Your task to perform on an android device: open app "PUBG MOBILE" (install if not already installed), go to login, and select forgot password Image 0: 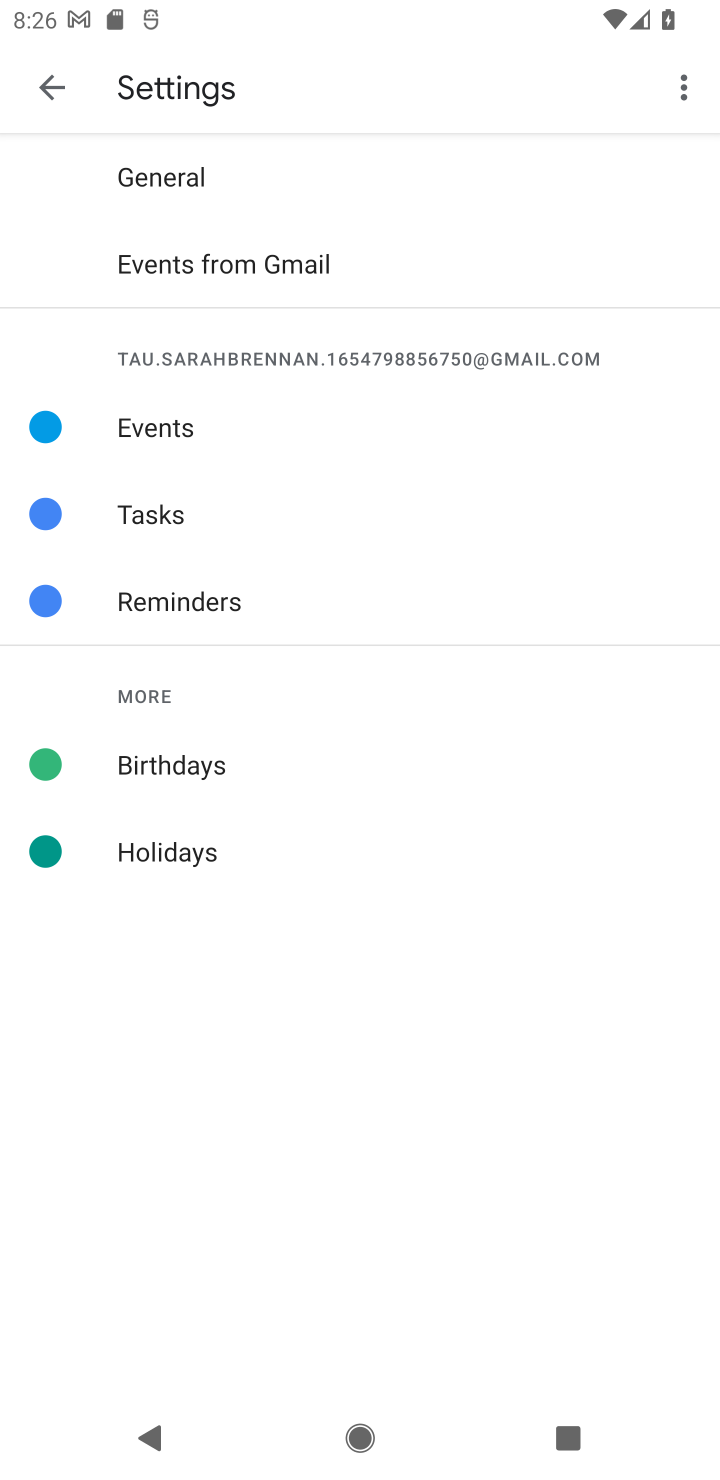
Step 0: press home button
Your task to perform on an android device: open app "PUBG MOBILE" (install if not already installed), go to login, and select forgot password Image 1: 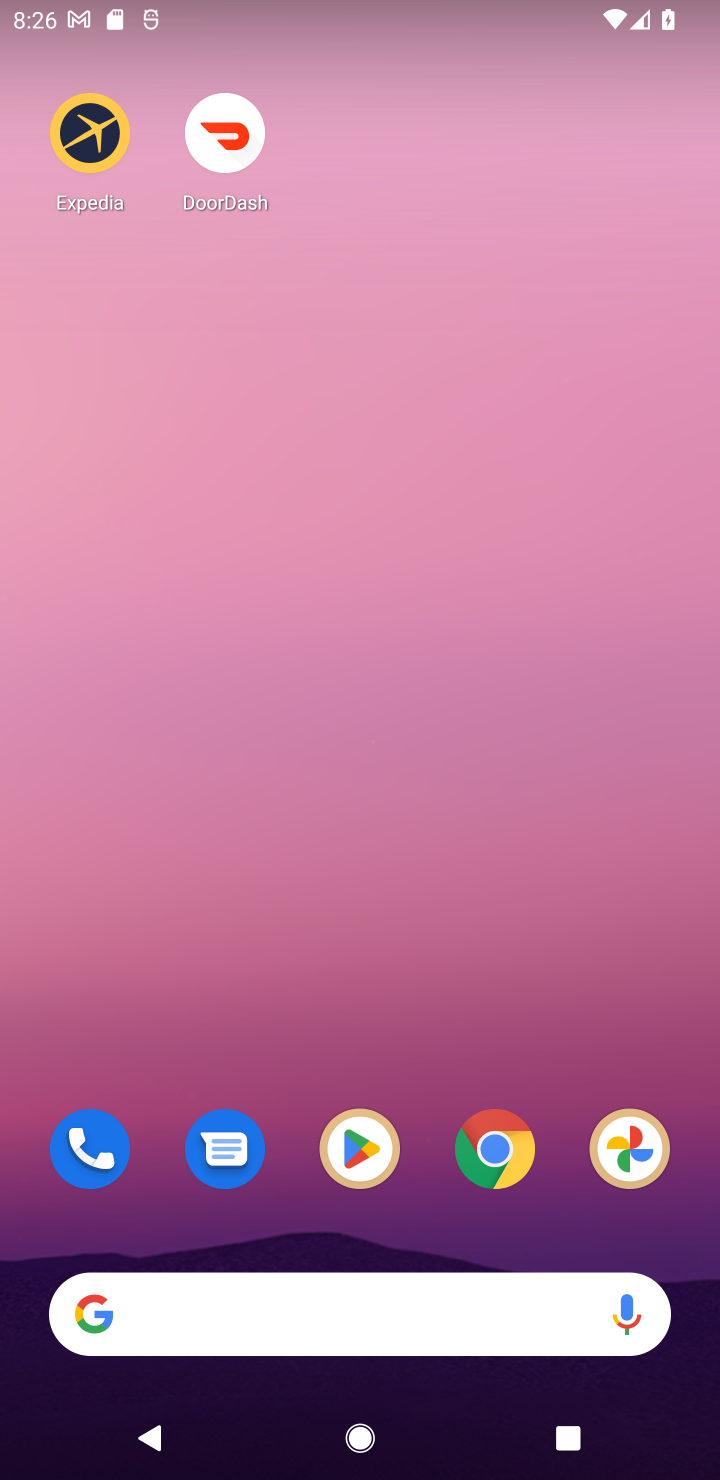
Step 1: click (350, 1139)
Your task to perform on an android device: open app "PUBG MOBILE" (install if not already installed), go to login, and select forgot password Image 2: 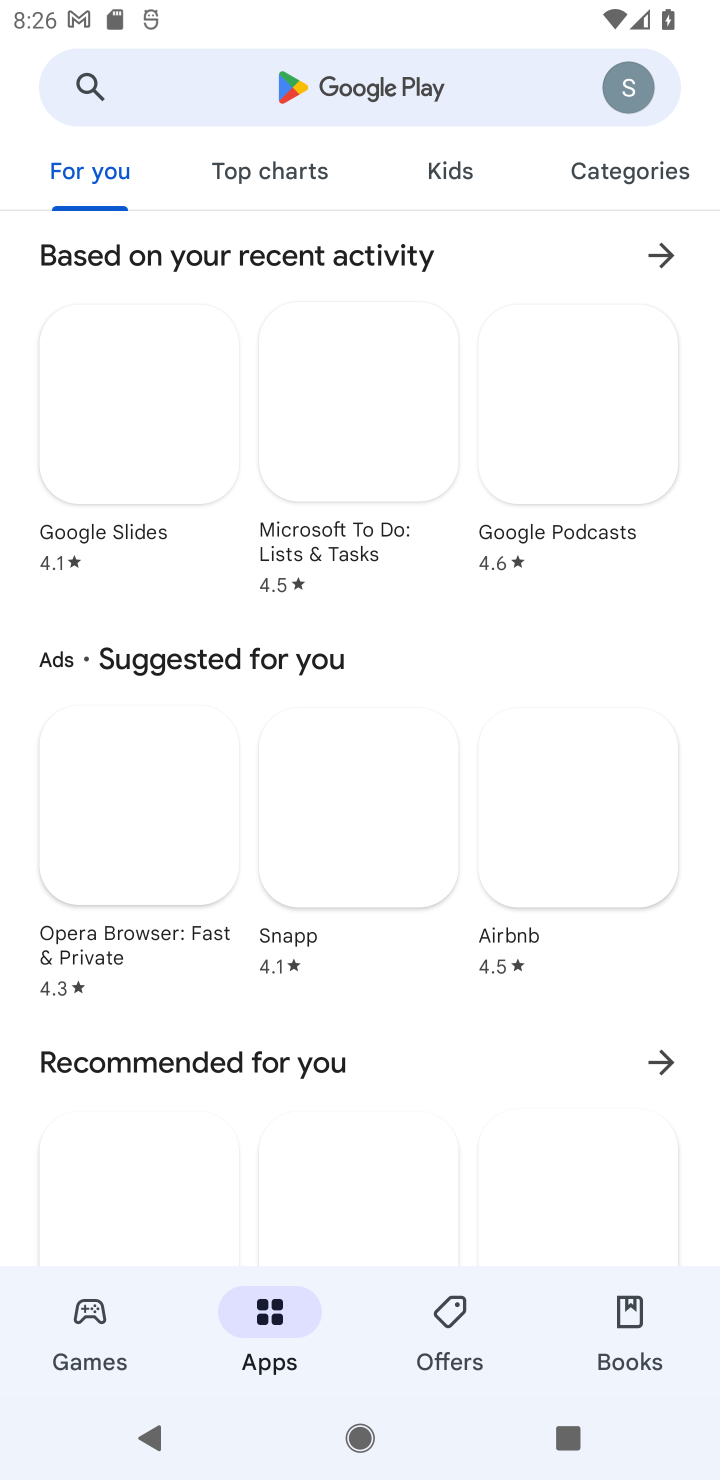
Step 2: click (225, 66)
Your task to perform on an android device: open app "PUBG MOBILE" (install if not already installed), go to login, and select forgot password Image 3: 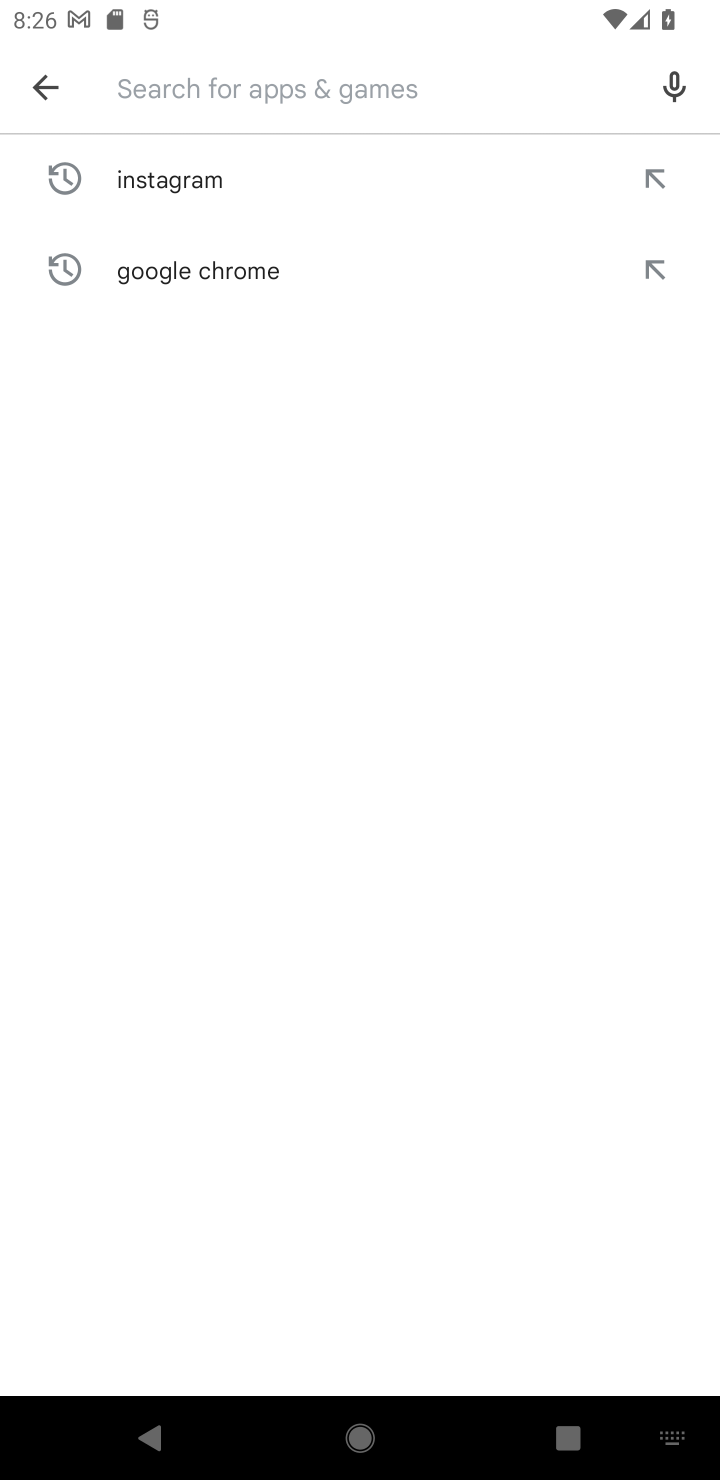
Step 3: type "PUBG MOBILE"
Your task to perform on an android device: open app "PUBG MOBILE" (install if not already installed), go to login, and select forgot password Image 4: 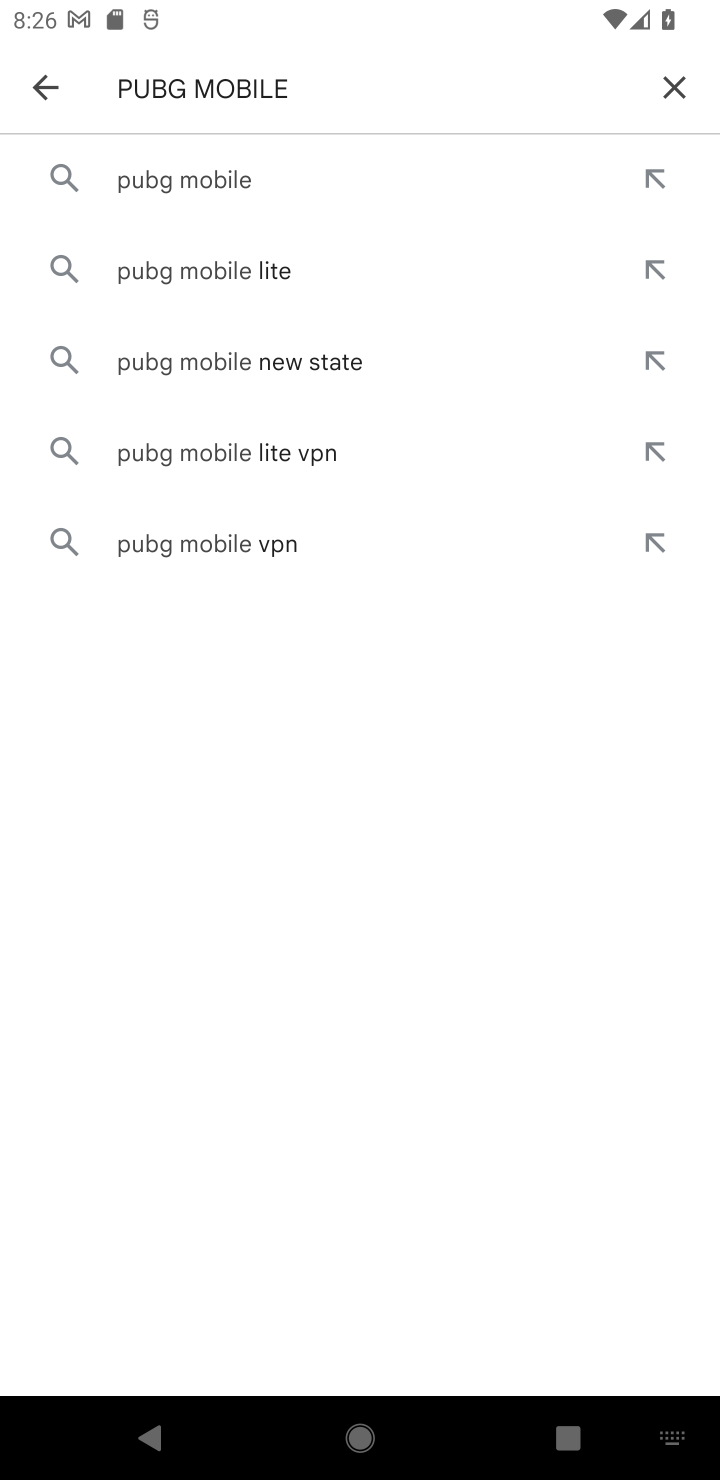
Step 4: click (357, 189)
Your task to perform on an android device: open app "PUBG MOBILE" (install if not already installed), go to login, and select forgot password Image 5: 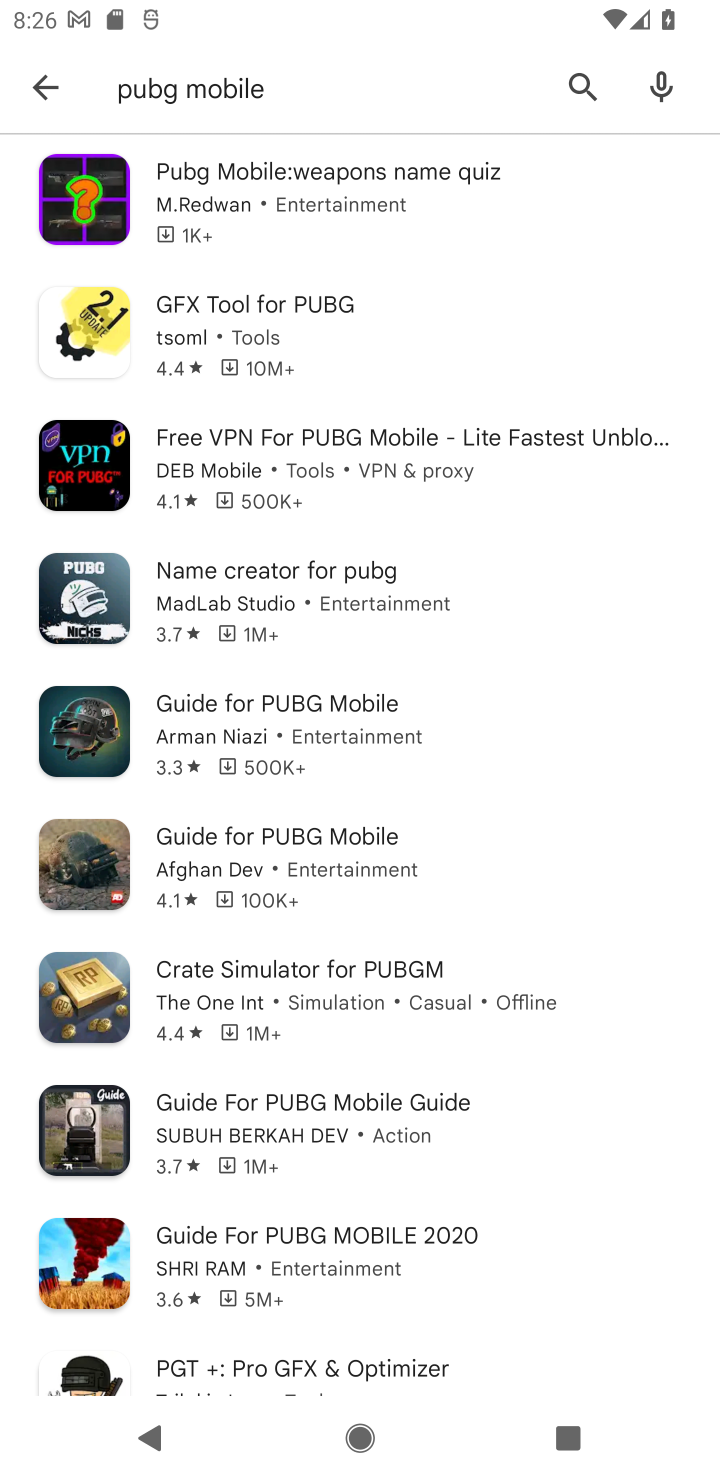
Step 5: task complete